Your task to perform on an android device: change the clock display to analog Image 0: 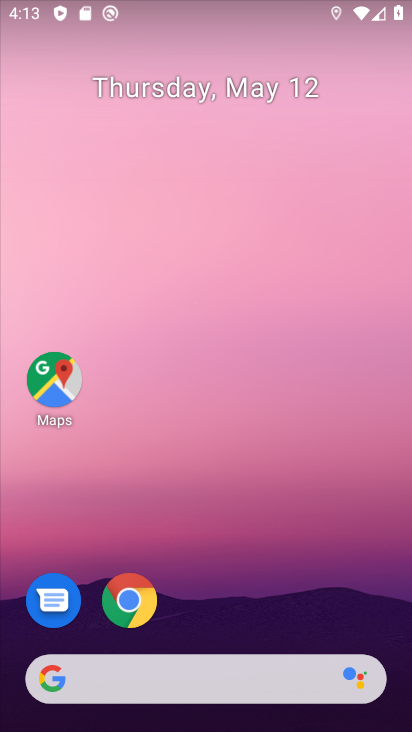
Step 0: drag from (194, 644) to (272, 146)
Your task to perform on an android device: change the clock display to analog Image 1: 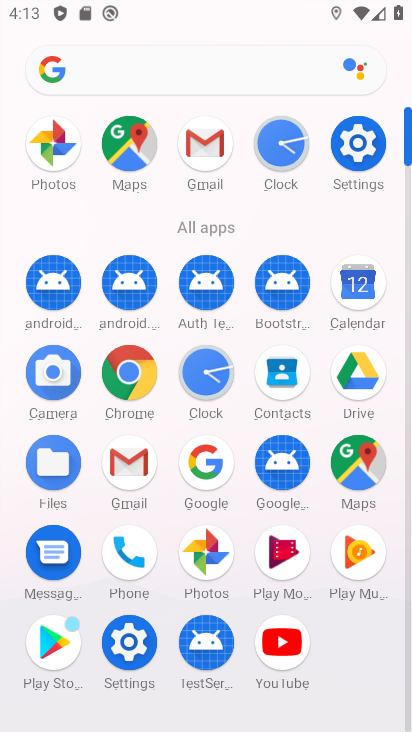
Step 1: click (223, 359)
Your task to perform on an android device: change the clock display to analog Image 2: 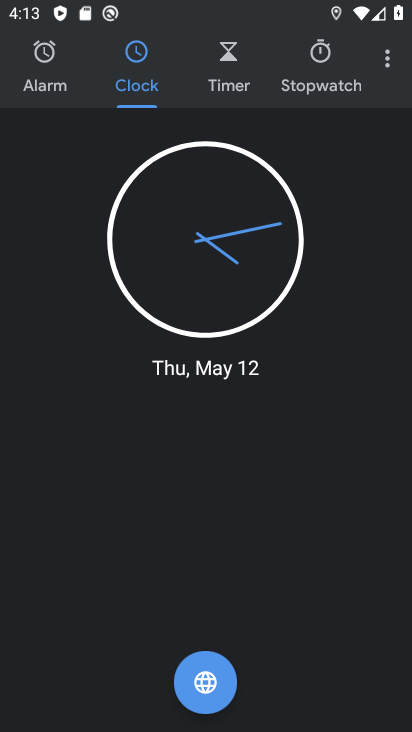
Step 2: click (388, 61)
Your task to perform on an android device: change the clock display to analog Image 3: 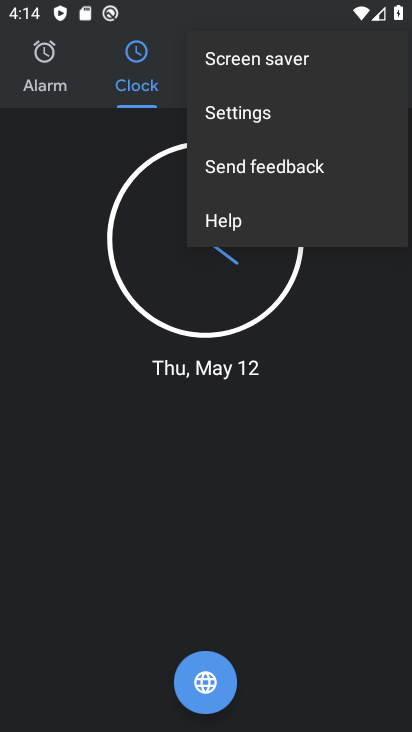
Step 3: click (258, 112)
Your task to perform on an android device: change the clock display to analog Image 4: 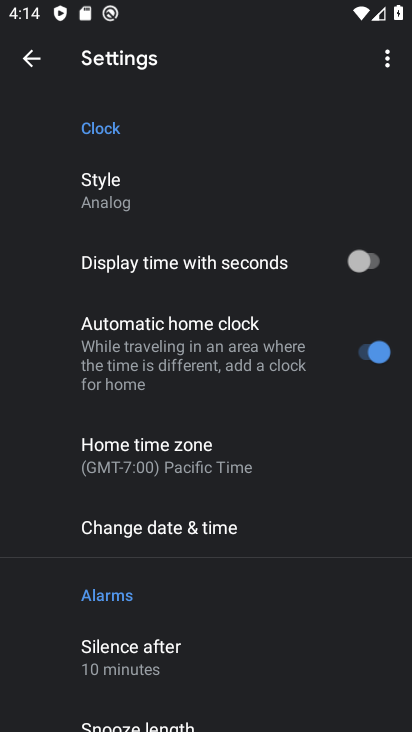
Step 4: click (133, 184)
Your task to perform on an android device: change the clock display to analog Image 5: 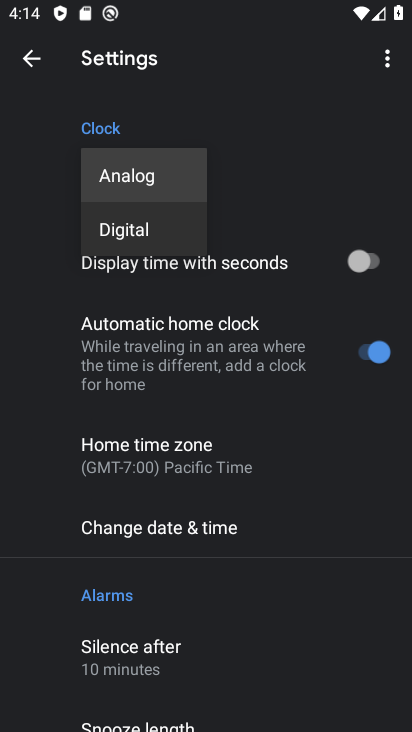
Step 5: click (135, 182)
Your task to perform on an android device: change the clock display to analog Image 6: 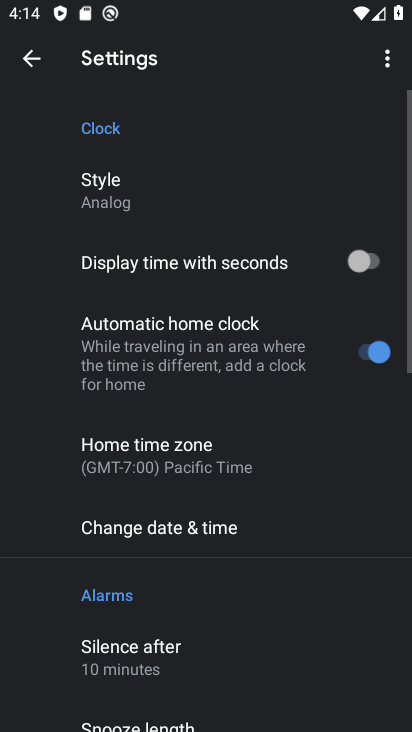
Step 6: task complete